Your task to perform on an android device: Go to display settings Image 0: 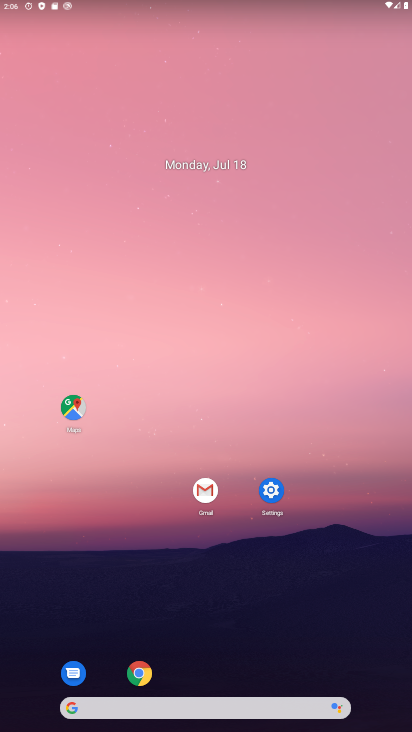
Step 0: press home button
Your task to perform on an android device: Go to display settings Image 1: 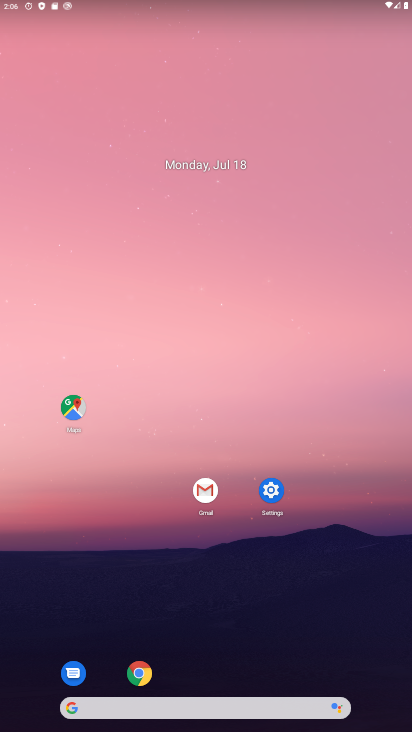
Step 1: click (276, 486)
Your task to perform on an android device: Go to display settings Image 2: 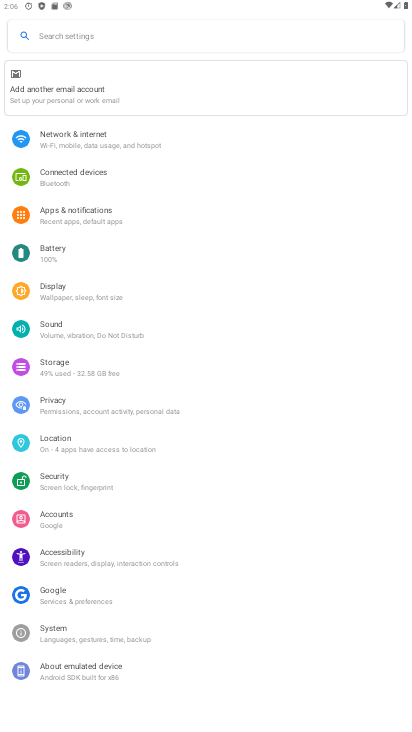
Step 2: click (67, 289)
Your task to perform on an android device: Go to display settings Image 3: 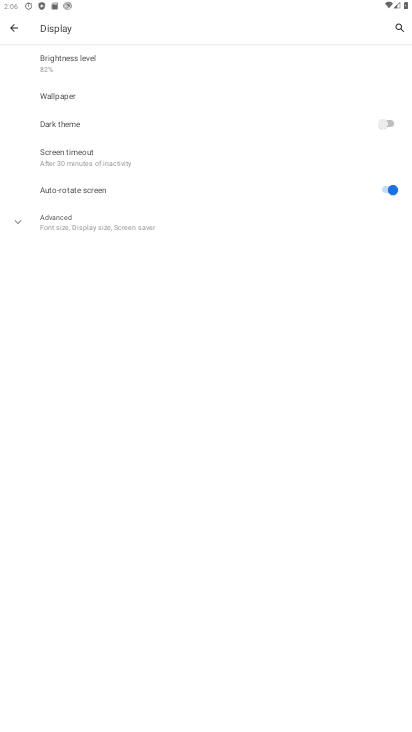
Step 3: click (105, 314)
Your task to perform on an android device: Go to display settings Image 4: 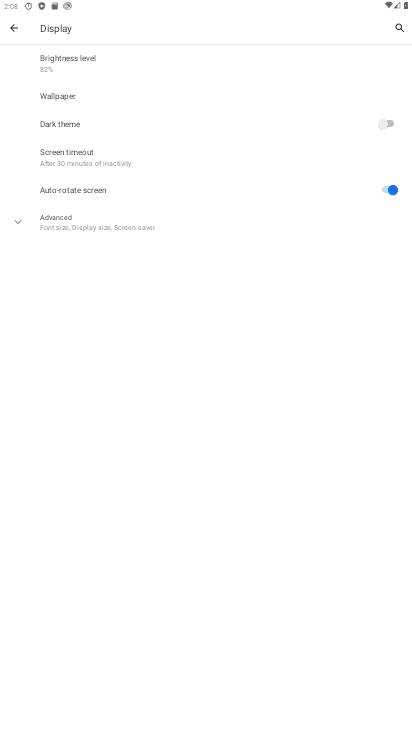
Step 4: task complete